Your task to perform on an android device: remove spam from my inbox in the gmail app Image 0: 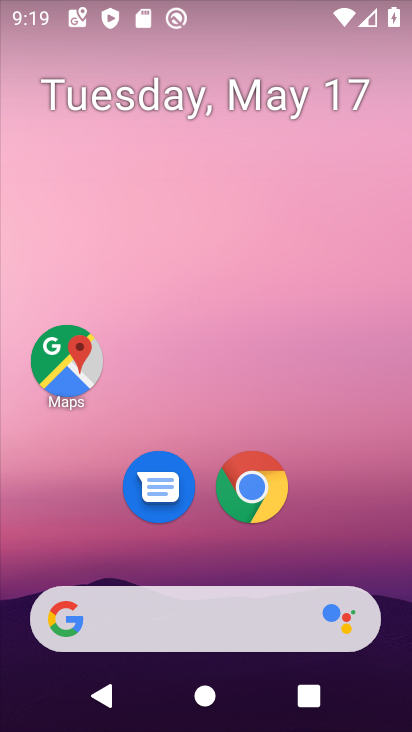
Step 0: press home button
Your task to perform on an android device: remove spam from my inbox in the gmail app Image 1: 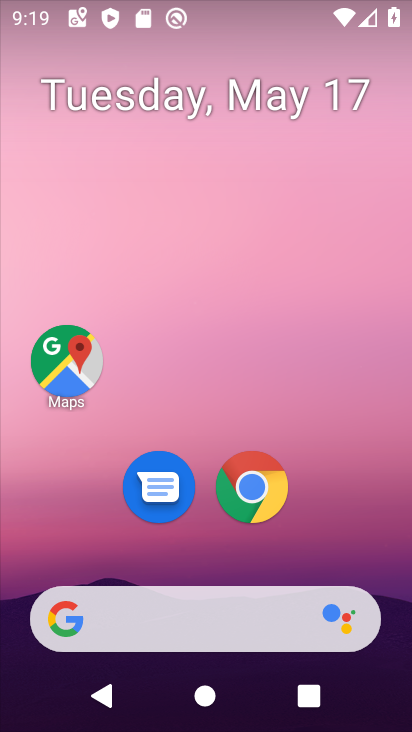
Step 1: drag from (285, 660) to (234, 267)
Your task to perform on an android device: remove spam from my inbox in the gmail app Image 2: 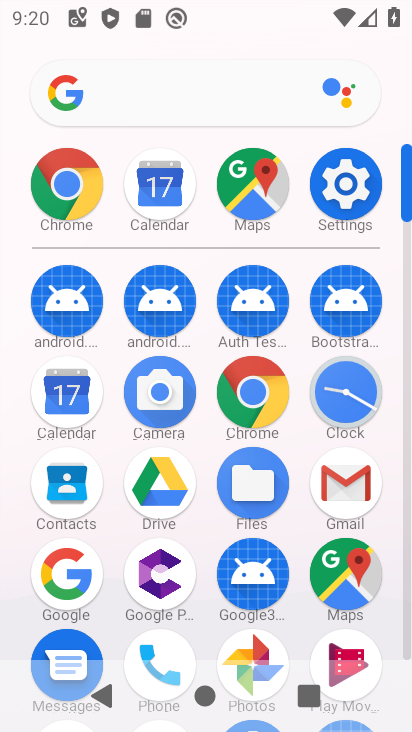
Step 2: click (331, 507)
Your task to perform on an android device: remove spam from my inbox in the gmail app Image 3: 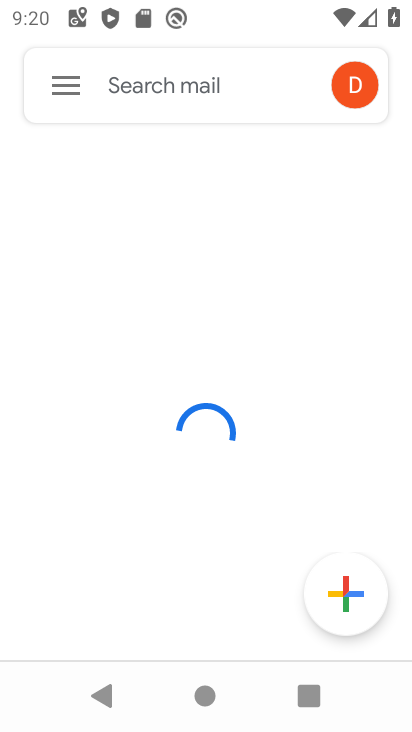
Step 3: click (60, 99)
Your task to perform on an android device: remove spam from my inbox in the gmail app Image 4: 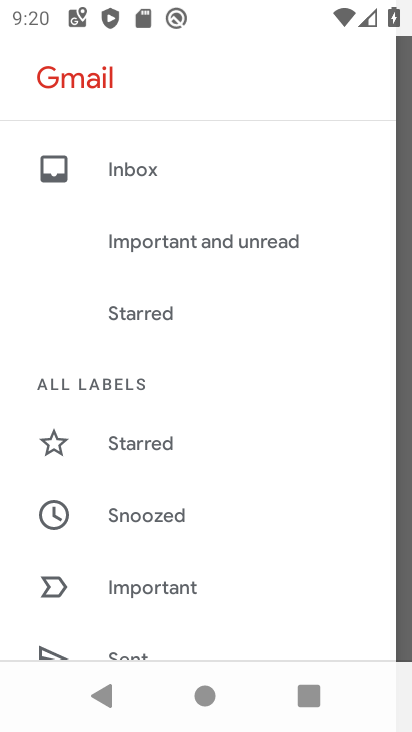
Step 4: drag from (160, 544) to (231, 339)
Your task to perform on an android device: remove spam from my inbox in the gmail app Image 5: 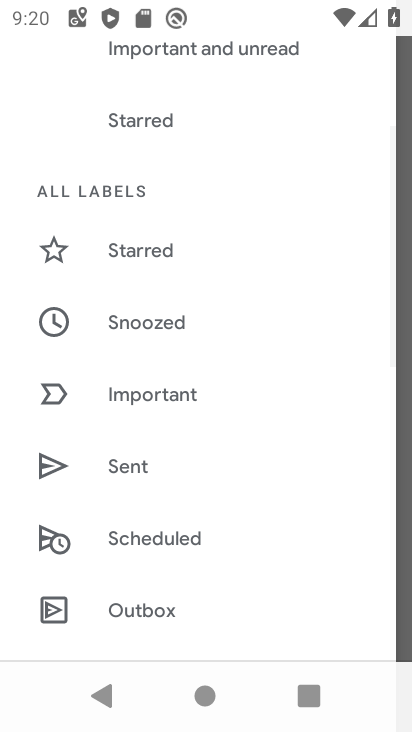
Step 5: drag from (203, 586) to (285, 246)
Your task to perform on an android device: remove spam from my inbox in the gmail app Image 6: 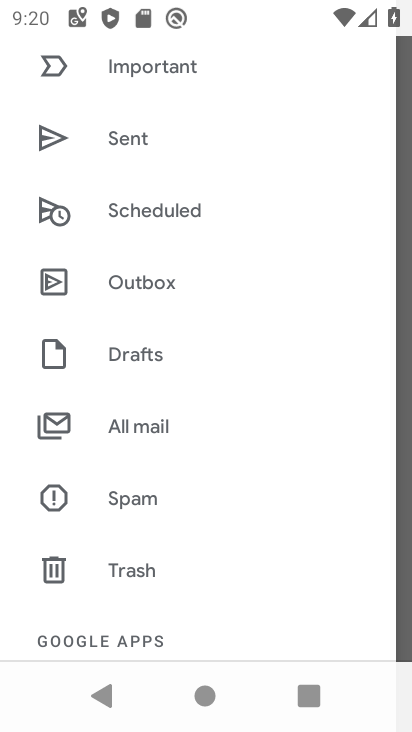
Step 6: click (177, 494)
Your task to perform on an android device: remove spam from my inbox in the gmail app Image 7: 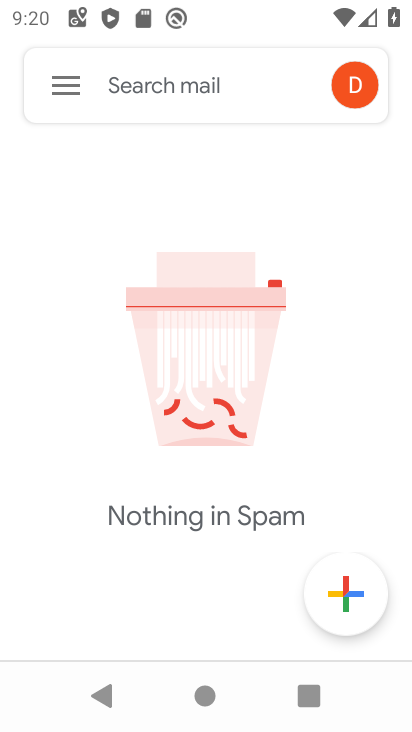
Step 7: task complete